Your task to perform on an android device: Open Google Chrome and click the shortcut for Amazon.com Image 0: 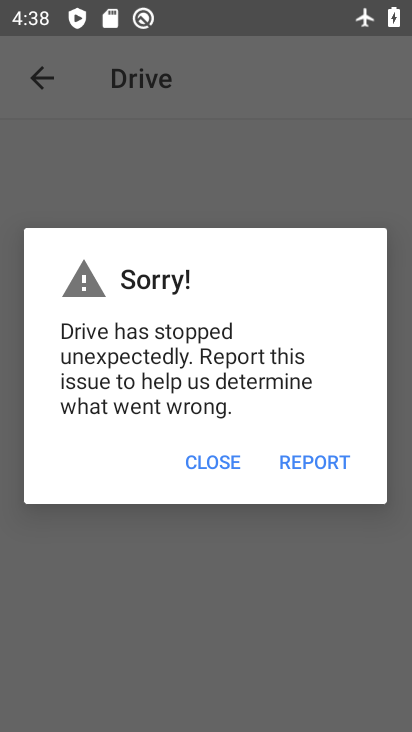
Step 0: click (216, 463)
Your task to perform on an android device: Open Google Chrome and click the shortcut for Amazon.com Image 1: 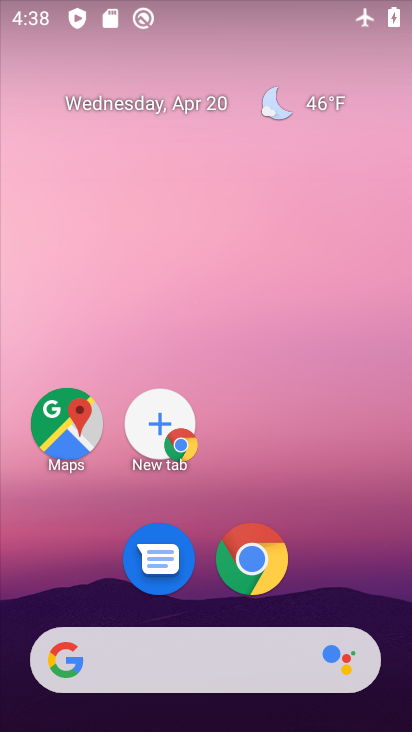
Step 1: click (267, 552)
Your task to perform on an android device: Open Google Chrome and click the shortcut for Amazon.com Image 2: 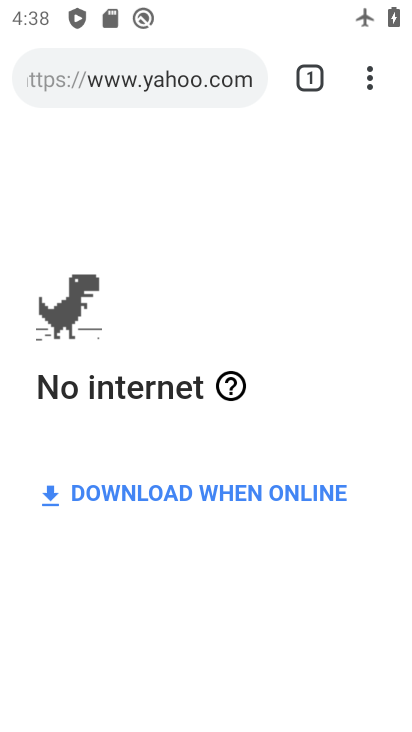
Step 2: task complete